Your task to perform on an android device: Show me popular videos on Youtube Image 0: 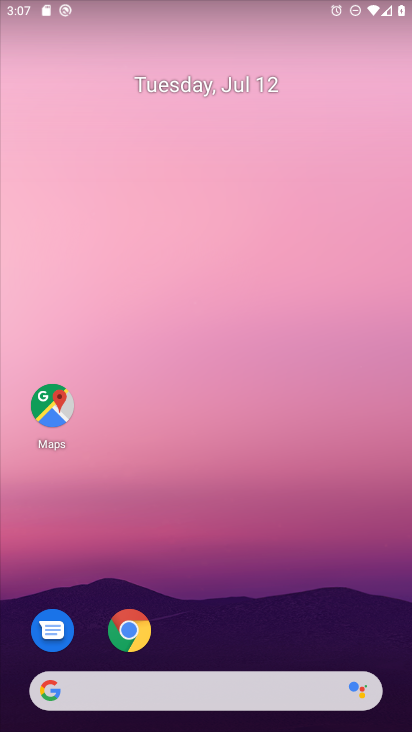
Step 0: drag from (234, 603) to (264, 169)
Your task to perform on an android device: Show me popular videos on Youtube Image 1: 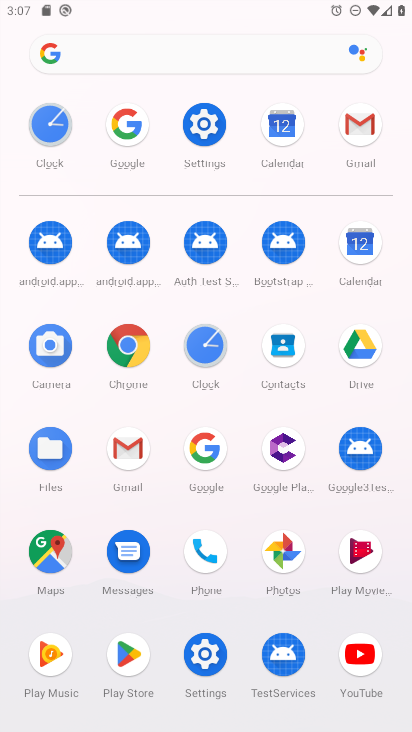
Step 1: click (367, 649)
Your task to perform on an android device: Show me popular videos on Youtube Image 2: 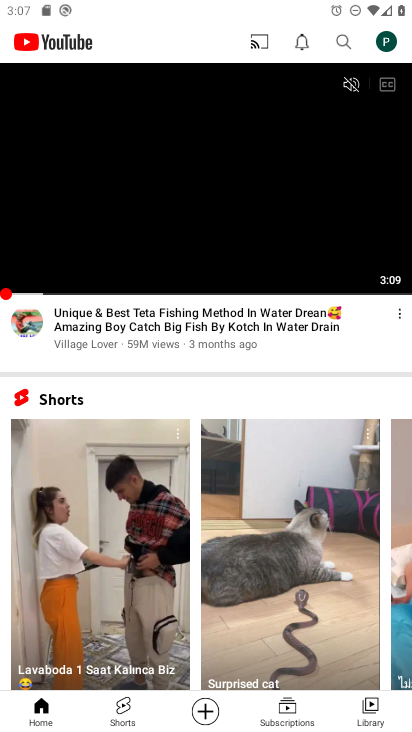
Step 2: click (340, 42)
Your task to perform on an android device: Show me popular videos on Youtube Image 3: 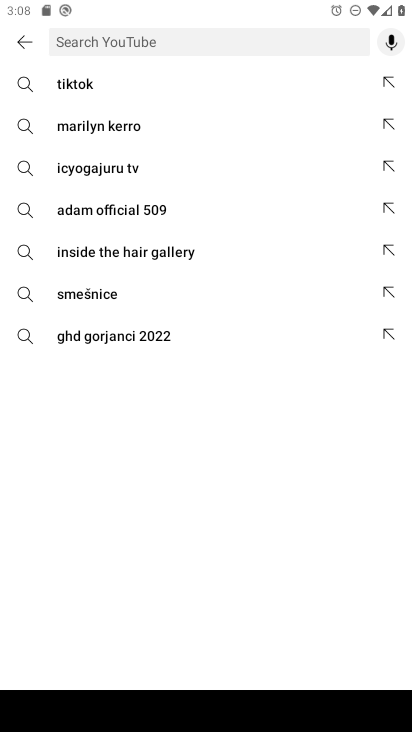
Step 3: click (205, 38)
Your task to perform on an android device: Show me popular videos on Youtube Image 4: 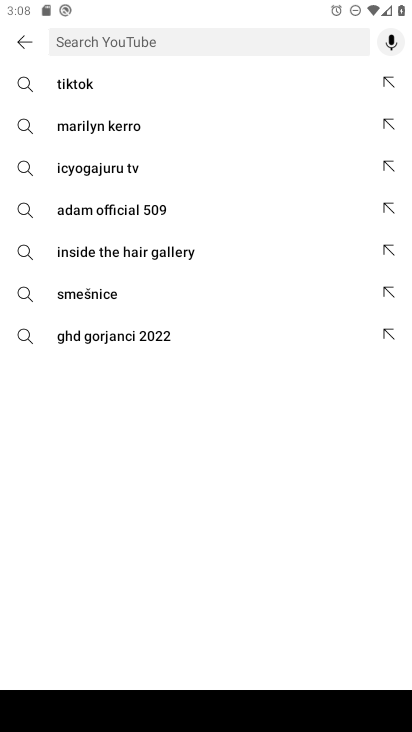
Step 4: type "popular videos"
Your task to perform on an android device: Show me popular videos on Youtube Image 5: 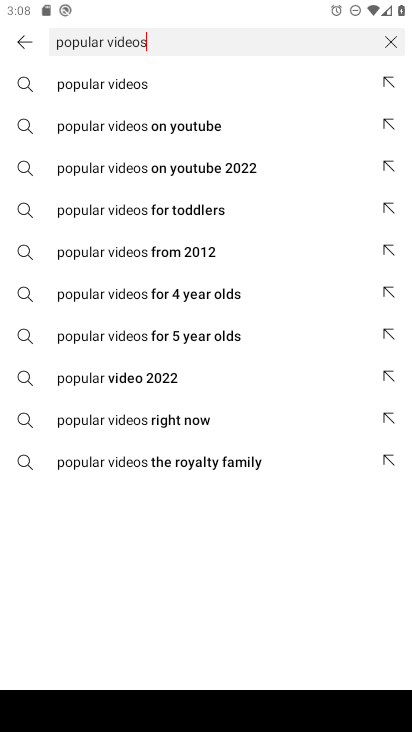
Step 5: click (142, 83)
Your task to perform on an android device: Show me popular videos on Youtube Image 6: 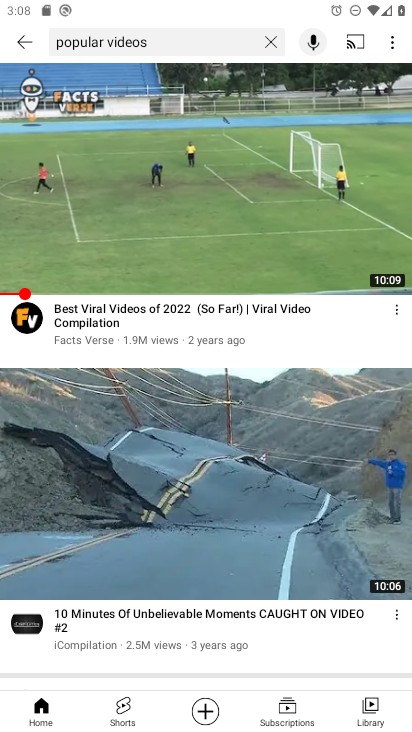
Step 6: task complete